Your task to perform on an android device: check out phone information Image 0: 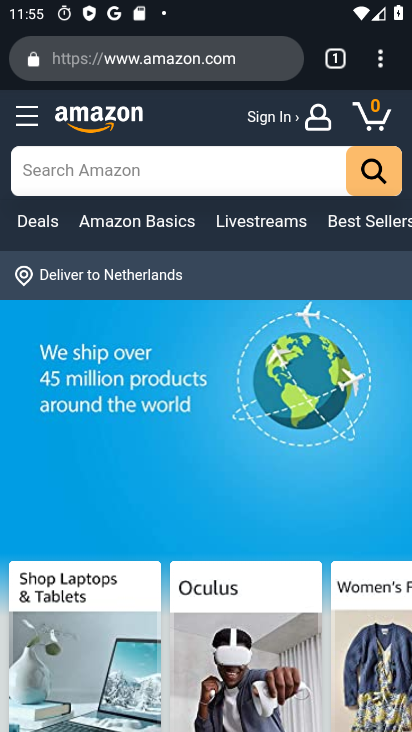
Step 0: press home button
Your task to perform on an android device: check out phone information Image 1: 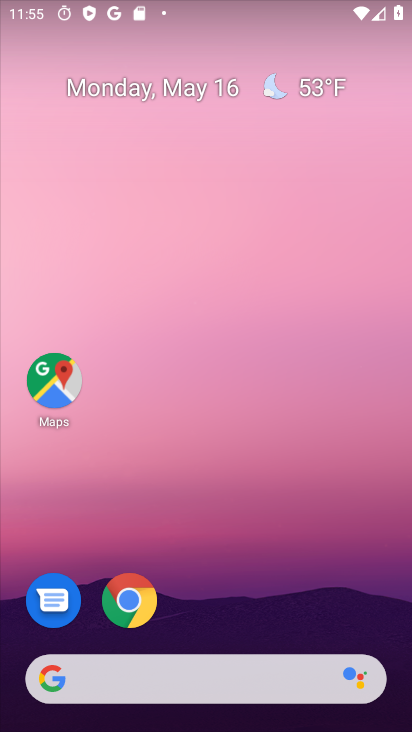
Step 1: drag from (245, 602) to (233, 0)
Your task to perform on an android device: check out phone information Image 2: 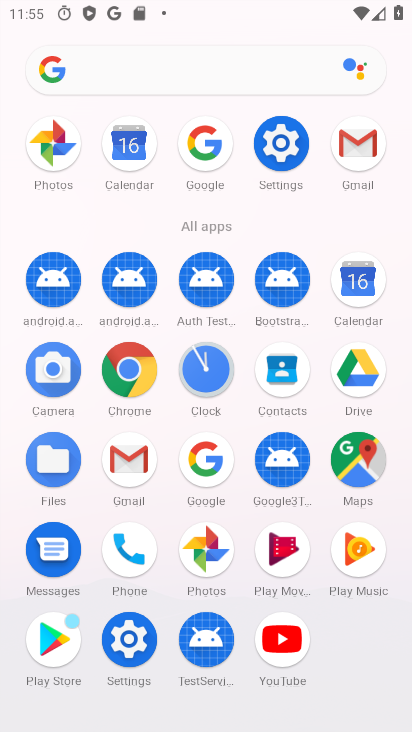
Step 2: click (281, 149)
Your task to perform on an android device: check out phone information Image 3: 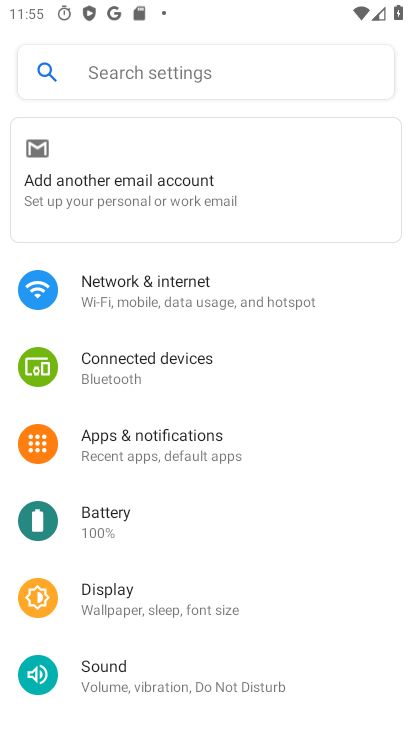
Step 3: drag from (197, 546) to (216, 69)
Your task to perform on an android device: check out phone information Image 4: 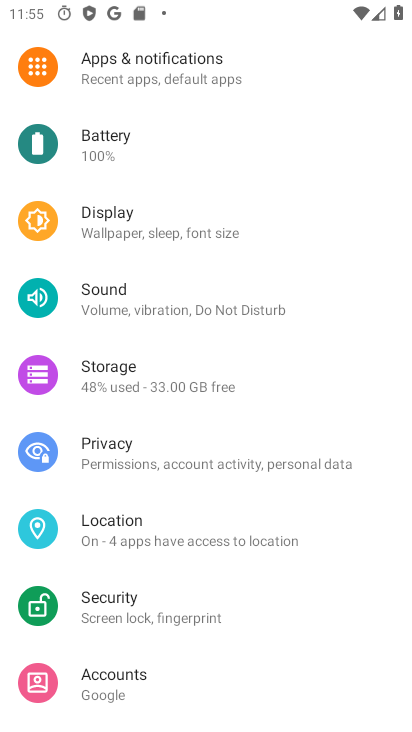
Step 4: drag from (204, 582) to (225, 121)
Your task to perform on an android device: check out phone information Image 5: 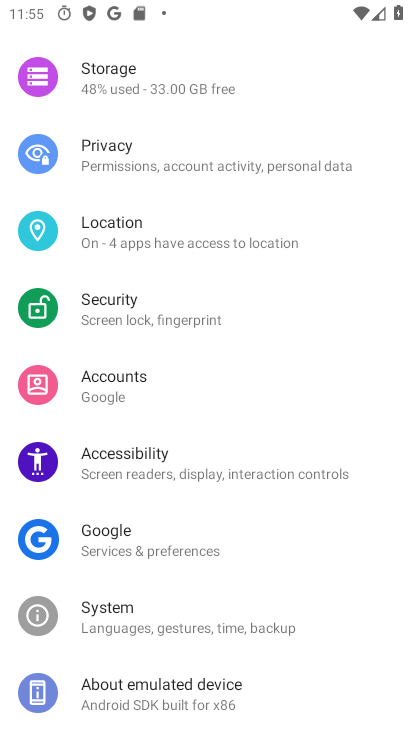
Step 5: click (183, 680)
Your task to perform on an android device: check out phone information Image 6: 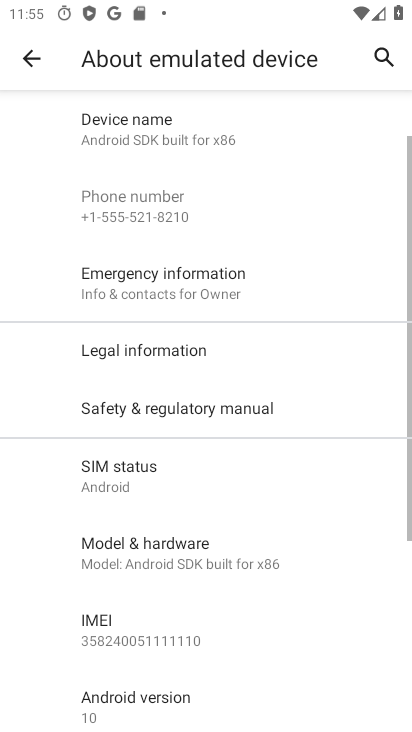
Step 6: task complete